Your task to perform on an android device: Search for sushi restaurants on Maps Image 0: 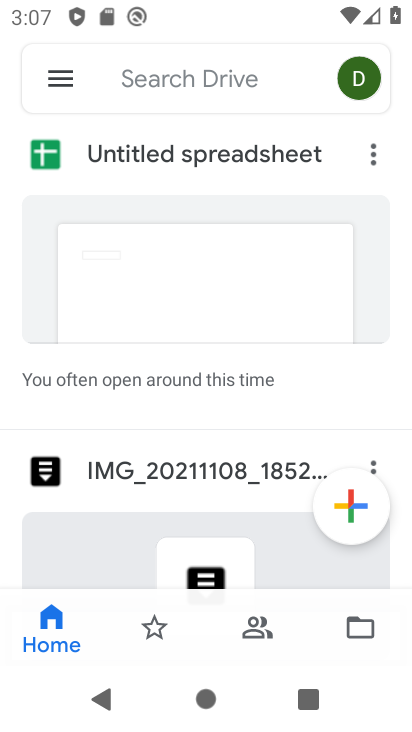
Step 0: press home button
Your task to perform on an android device: Search for sushi restaurants on Maps Image 1: 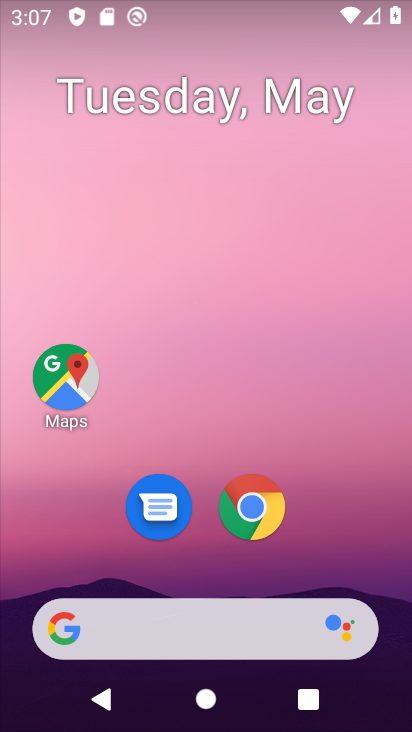
Step 1: click (47, 373)
Your task to perform on an android device: Search for sushi restaurants on Maps Image 2: 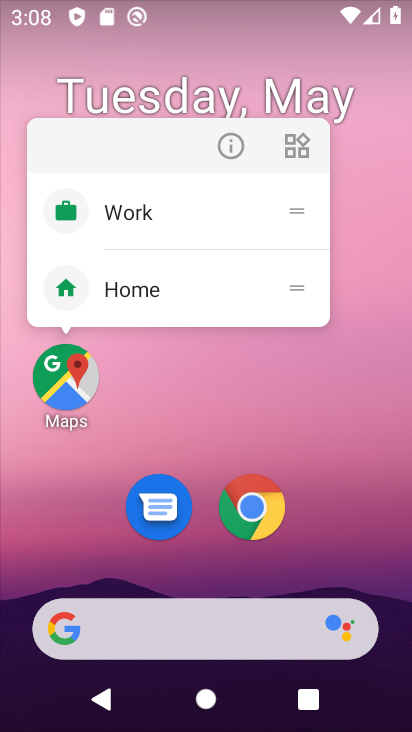
Step 2: click (56, 364)
Your task to perform on an android device: Search for sushi restaurants on Maps Image 3: 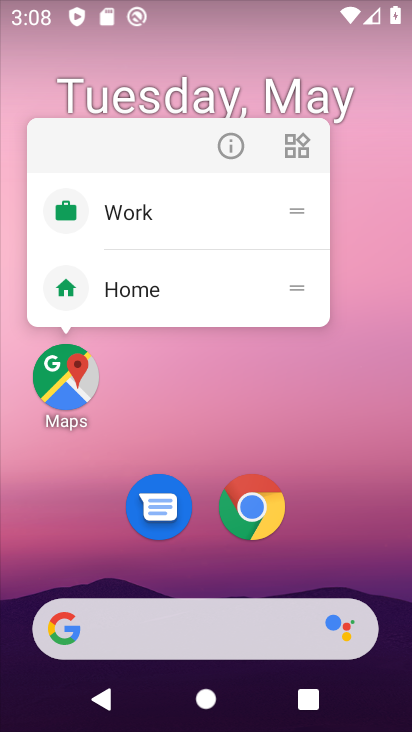
Step 3: click (56, 364)
Your task to perform on an android device: Search for sushi restaurants on Maps Image 4: 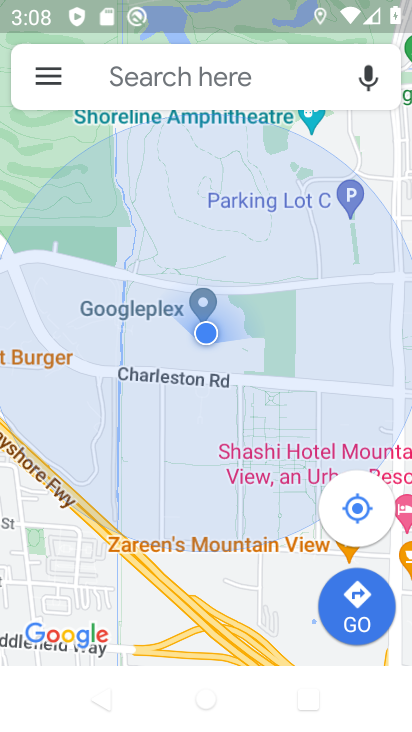
Step 4: click (123, 85)
Your task to perform on an android device: Search for sushi restaurants on Maps Image 5: 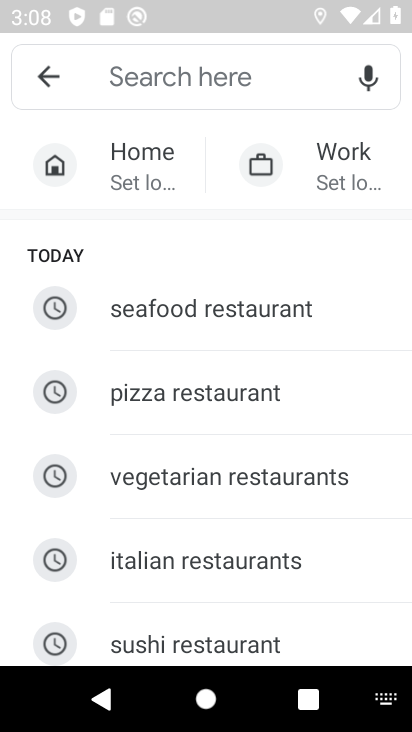
Step 5: type "sushi restaurants"
Your task to perform on an android device: Search for sushi restaurants on Maps Image 6: 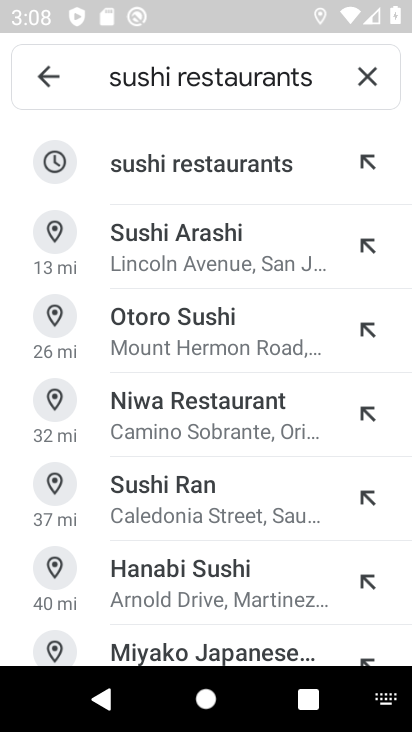
Step 6: click (236, 165)
Your task to perform on an android device: Search for sushi restaurants on Maps Image 7: 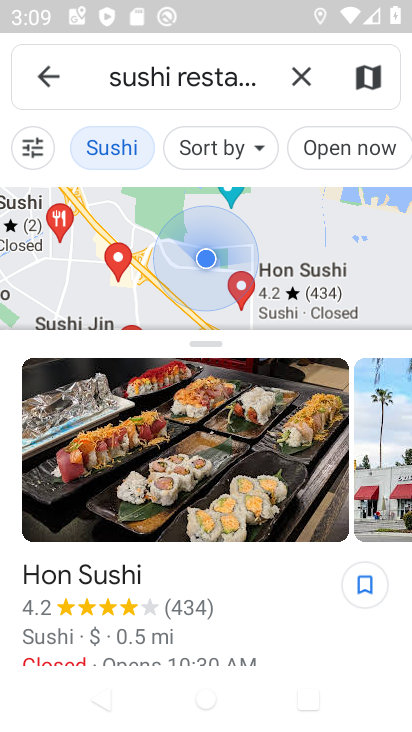
Step 7: task complete